Your task to perform on an android device: turn on the 24-hour format for clock Image 0: 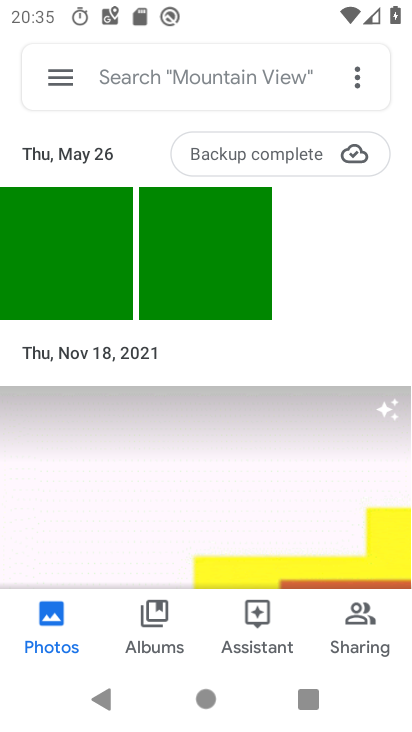
Step 0: press home button
Your task to perform on an android device: turn on the 24-hour format for clock Image 1: 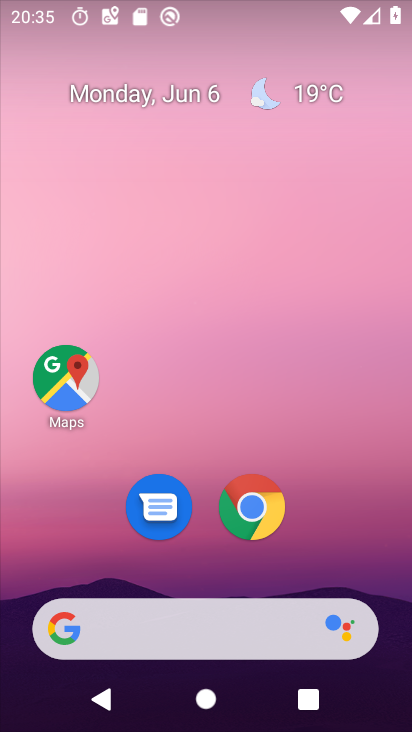
Step 1: drag from (309, 627) to (230, 45)
Your task to perform on an android device: turn on the 24-hour format for clock Image 2: 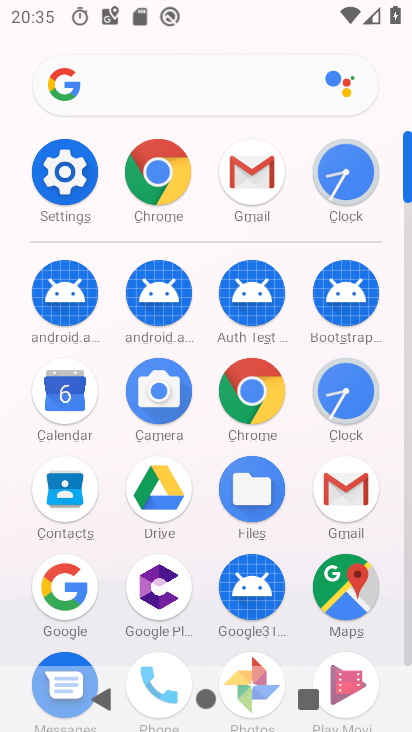
Step 2: click (349, 165)
Your task to perform on an android device: turn on the 24-hour format for clock Image 3: 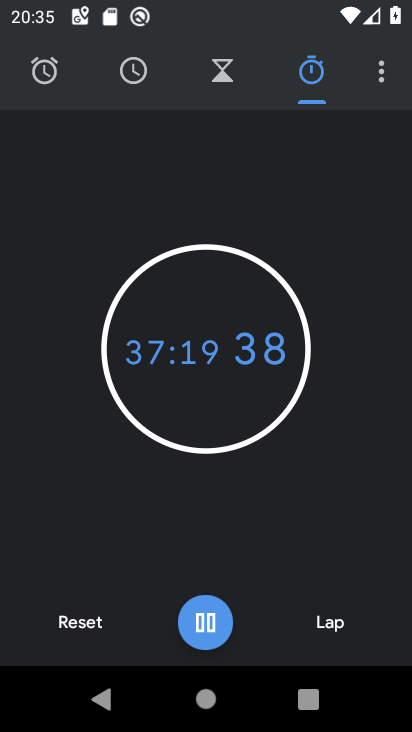
Step 3: click (371, 64)
Your task to perform on an android device: turn on the 24-hour format for clock Image 4: 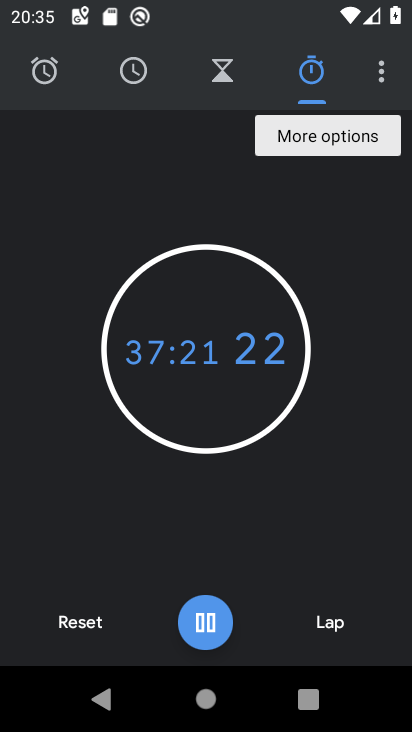
Step 4: click (371, 64)
Your task to perform on an android device: turn on the 24-hour format for clock Image 5: 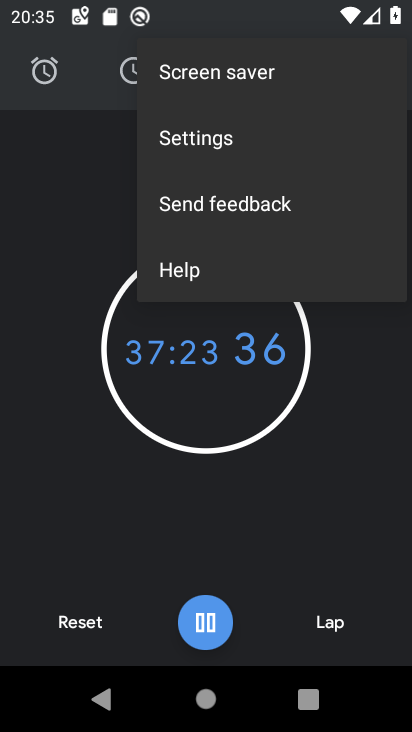
Step 5: click (215, 143)
Your task to perform on an android device: turn on the 24-hour format for clock Image 6: 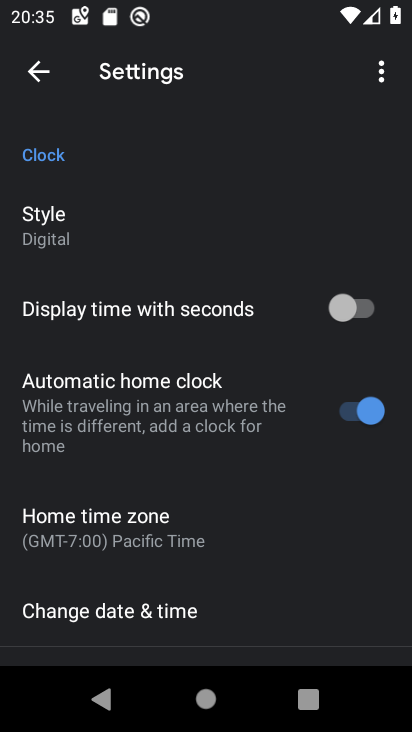
Step 6: click (153, 605)
Your task to perform on an android device: turn on the 24-hour format for clock Image 7: 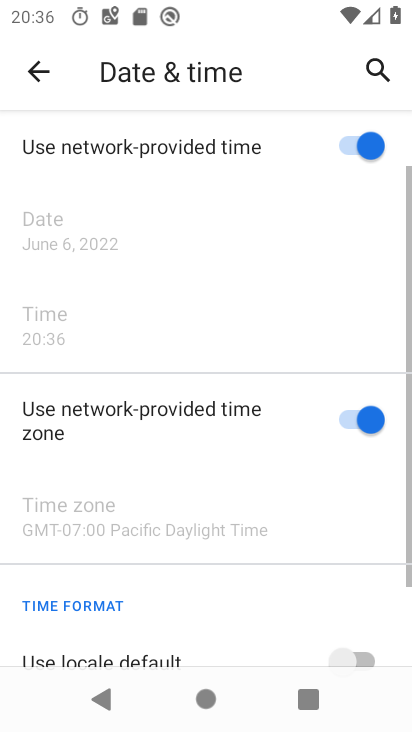
Step 7: task complete